Your task to perform on an android device: open app "YouTube Kids" (install if not already installed), go to login, and select forgot password Image 0: 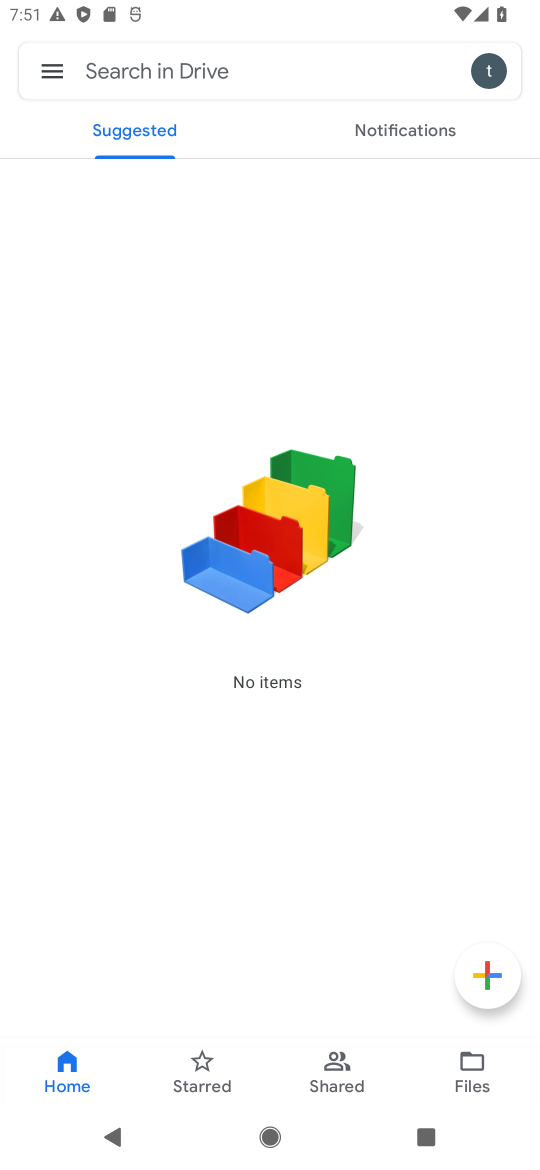
Step 0: press home button
Your task to perform on an android device: open app "YouTube Kids" (install if not already installed), go to login, and select forgot password Image 1: 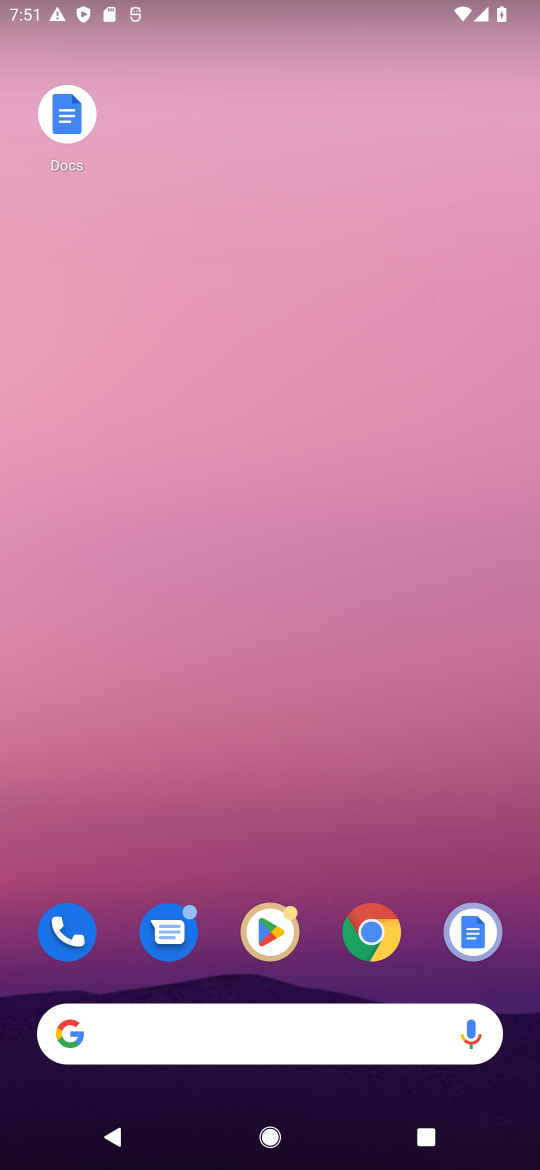
Step 1: click (278, 937)
Your task to perform on an android device: open app "YouTube Kids" (install if not already installed), go to login, and select forgot password Image 2: 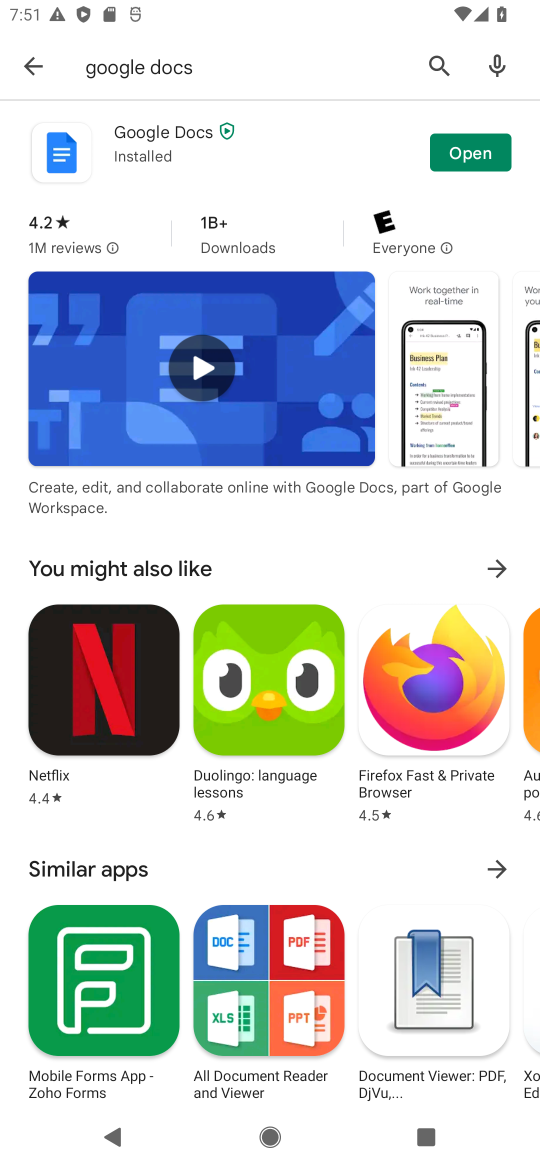
Step 2: click (123, 65)
Your task to perform on an android device: open app "YouTube Kids" (install if not already installed), go to login, and select forgot password Image 3: 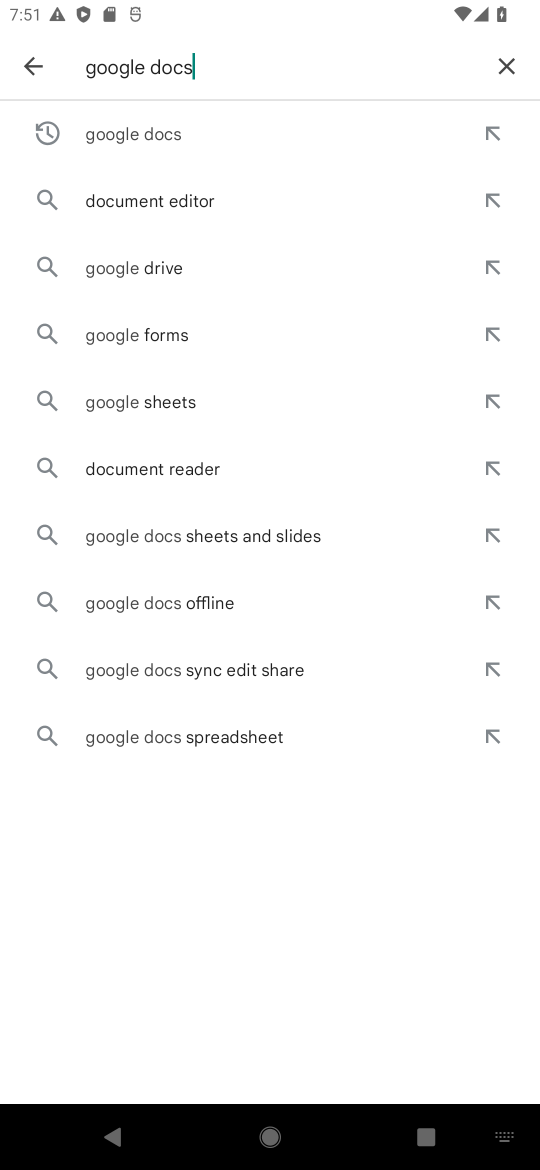
Step 3: click (502, 61)
Your task to perform on an android device: open app "YouTube Kids" (install if not already installed), go to login, and select forgot password Image 4: 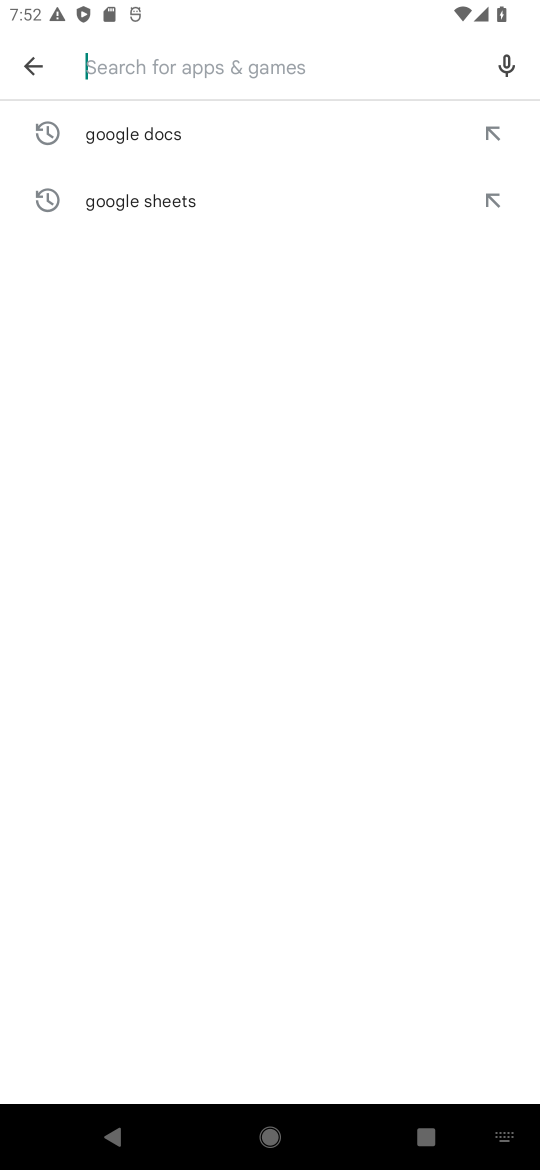
Step 4: type "youtube kids"
Your task to perform on an android device: open app "YouTube Kids" (install if not already installed), go to login, and select forgot password Image 5: 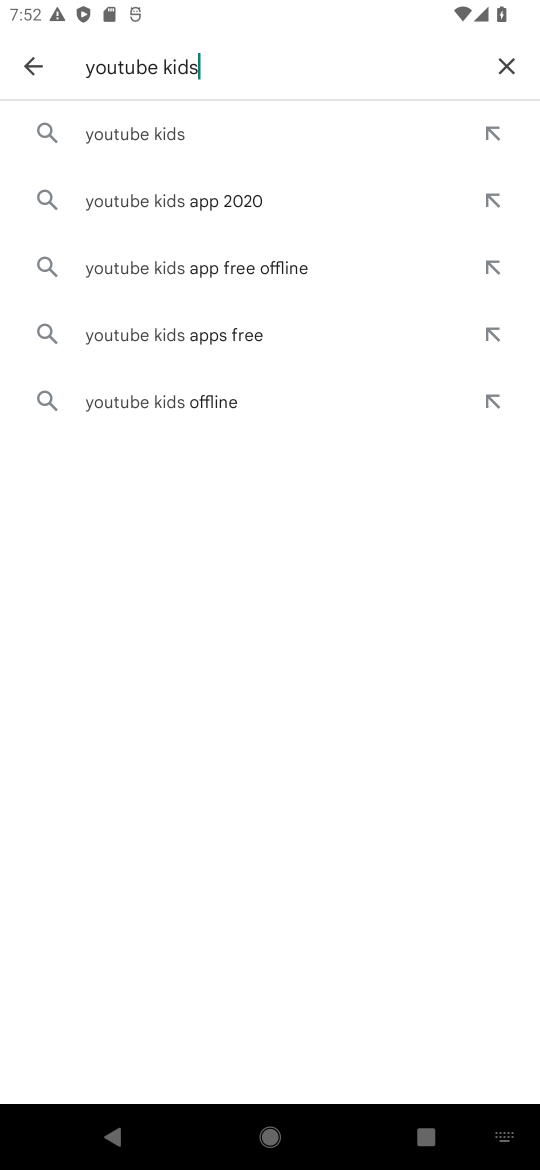
Step 5: click (160, 134)
Your task to perform on an android device: open app "YouTube Kids" (install if not already installed), go to login, and select forgot password Image 6: 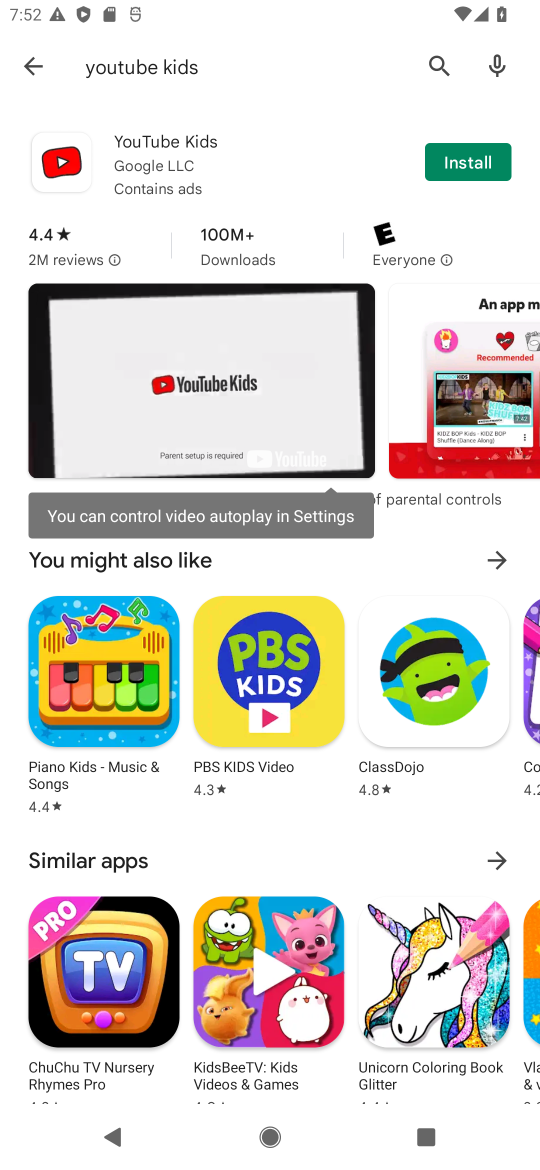
Step 6: click (472, 156)
Your task to perform on an android device: open app "YouTube Kids" (install if not already installed), go to login, and select forgot password Image 7: 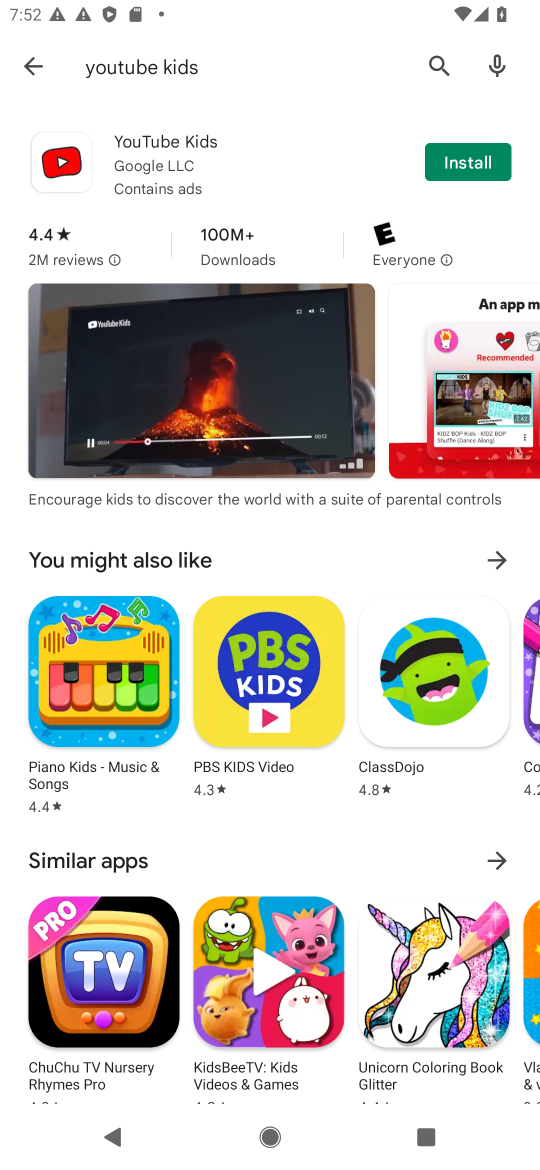
Step 7: click (481, 162)
Your task to perform on an android device: open app "YouTube Kids" (install if not already installed), go to login, and select forgot password Image 8: 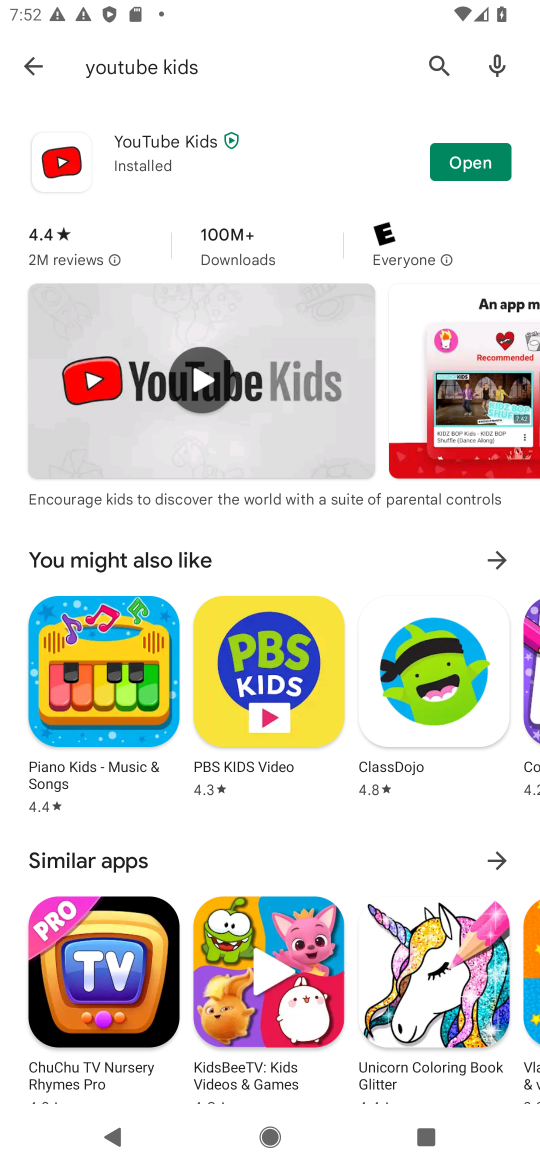
Step 8: click (493, 154)
Your task to perform on an android device: open app "YouTube Kids" (install if not already installed), go to login, and select forgot password Image 9: 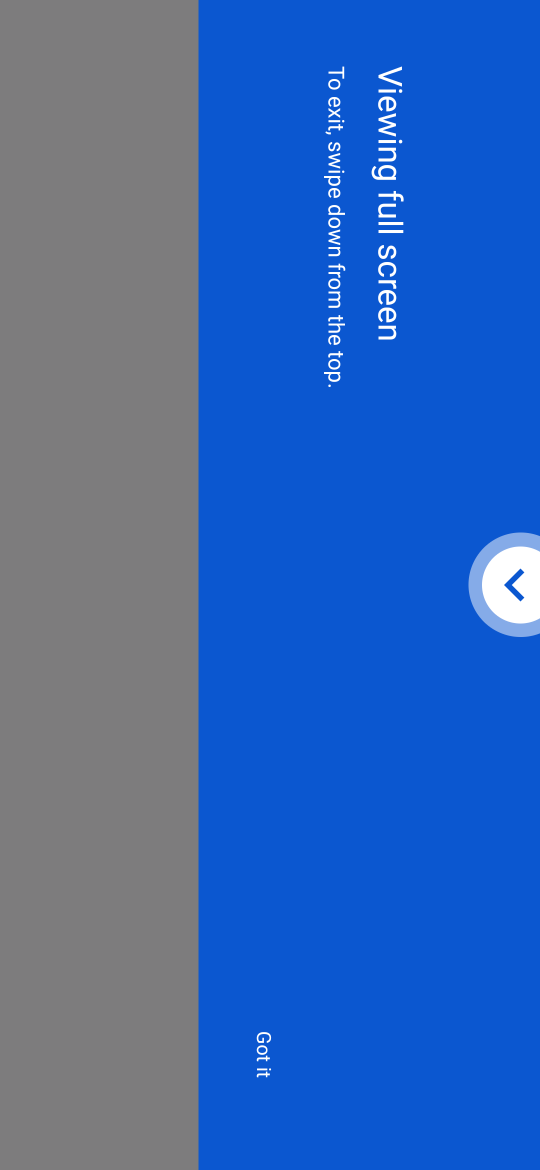
Step 9: click (279, 1035)
Your task to perform on an android device: open app "YouTube Kids" (install if not already installed), go to login, and select forgot password Image 10: 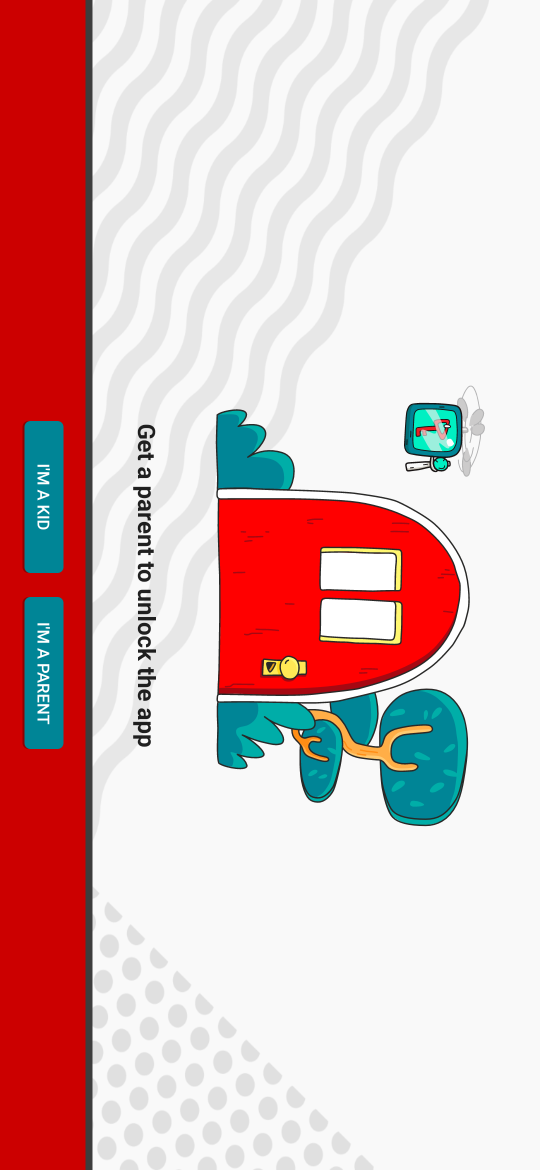
Step 10: click (44, 685)
Your task to perform on an android device: open app "YouTube Kids" (install if not already installed), go to login, and select forgot password Image 11: 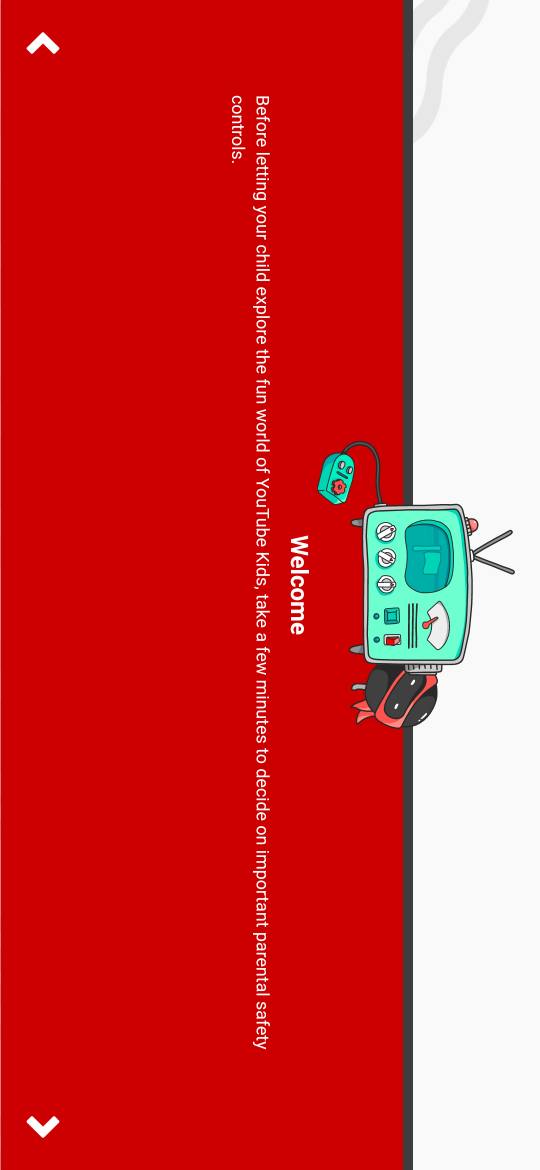
Step 11: click (36, 1130)
Your task to perform on an android device: open app "YouTube Kids" (install if not already installed), go to login, and select forgot password Image 12: 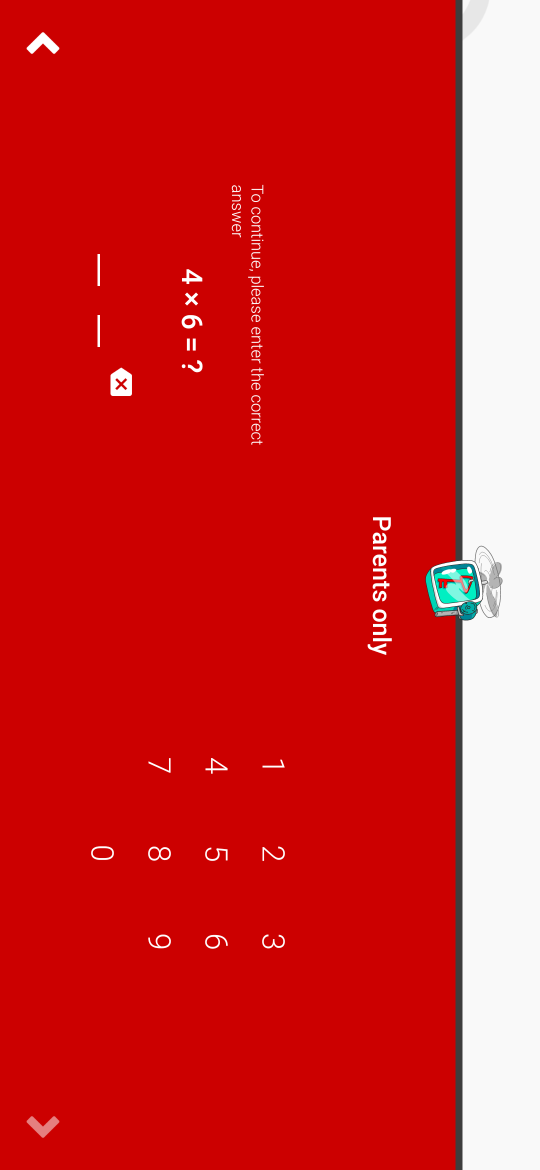
Step 12: click (279, 856)
Your task to perform on an android device: open app "YouTube Kids" (install if not already installed), go to login, and select forgot password Image 13: 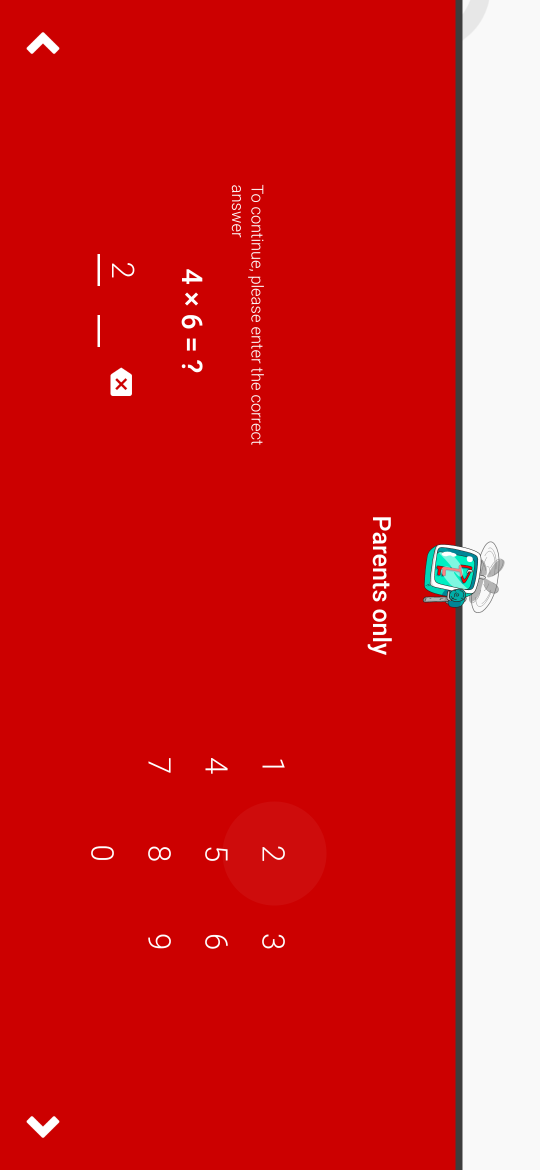
Step 13: click (212, 767)
Your task to perform on an android device: open app "YouTube Kids" (install if not already installed), go to login, and select forgot password Image 14: 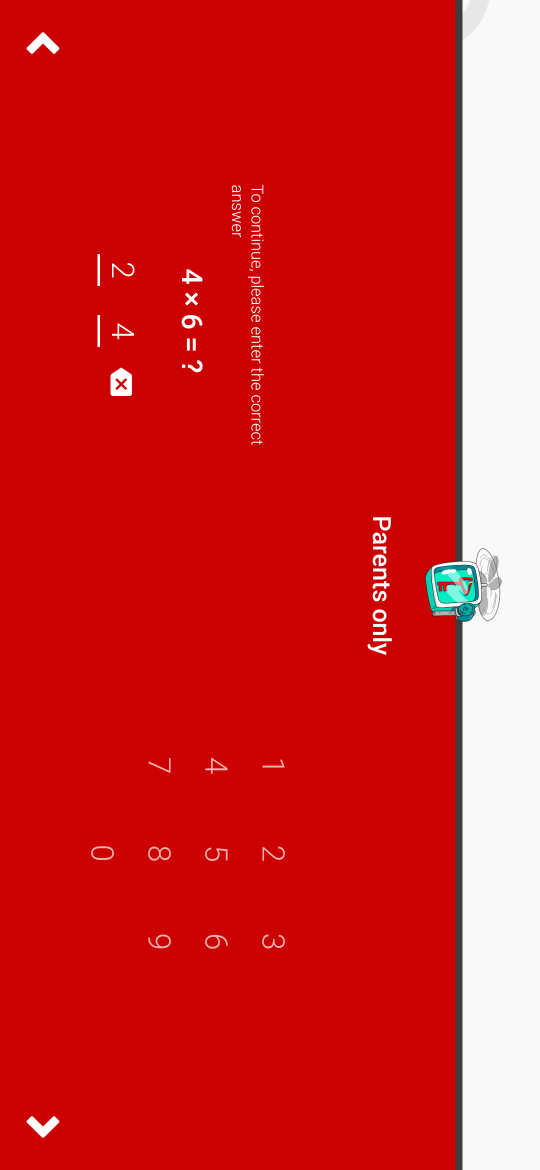
Step 14: click (35, 1128)
Your task to perform on an android device: open app "YouTube Kids" (install if not already installed), go to login, and select forgot password Image 15: 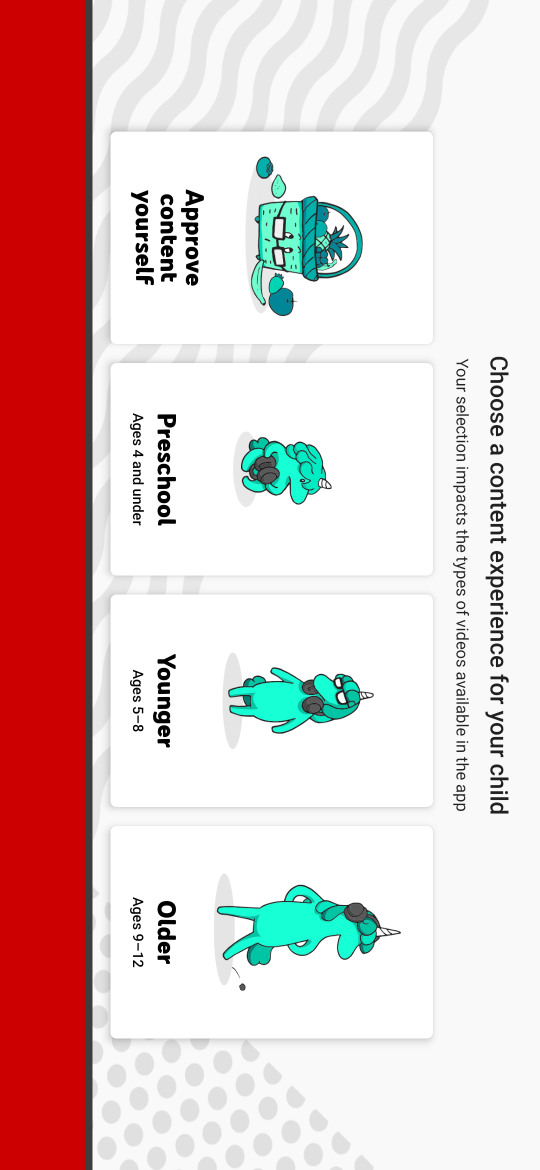
Step 15: click (238, 922)
Your task to perform on an android device: open app "YouTube Kids" (install if not already installed), go to login, and select forgot password Image 16: 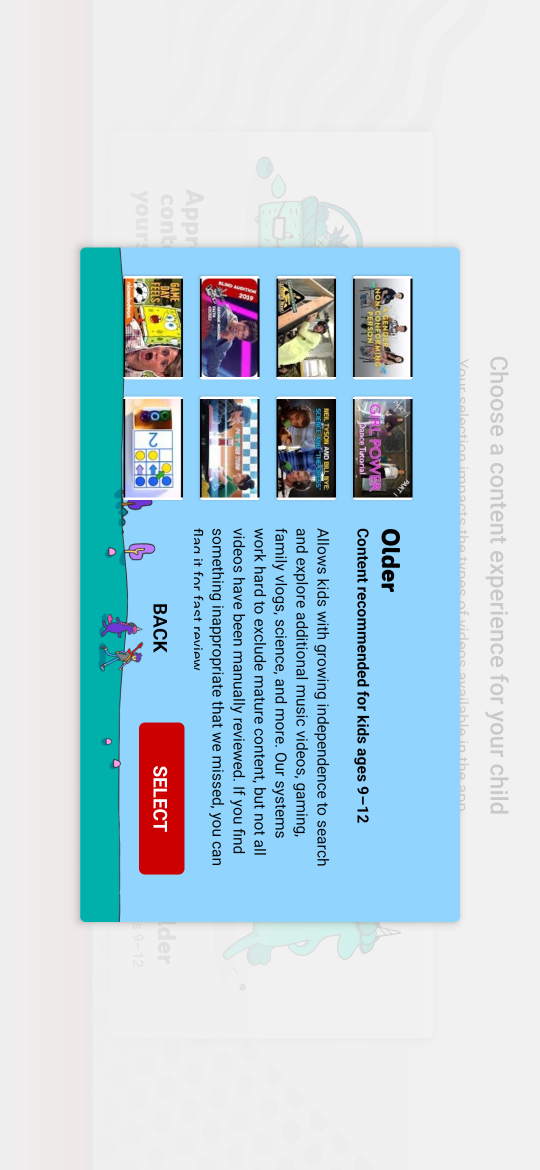
Step 16: click (157, 817)
Your task to perform on an android device: open app "YouTube Kids" (install if not already installed), go to login, and select forgot password Image 17: 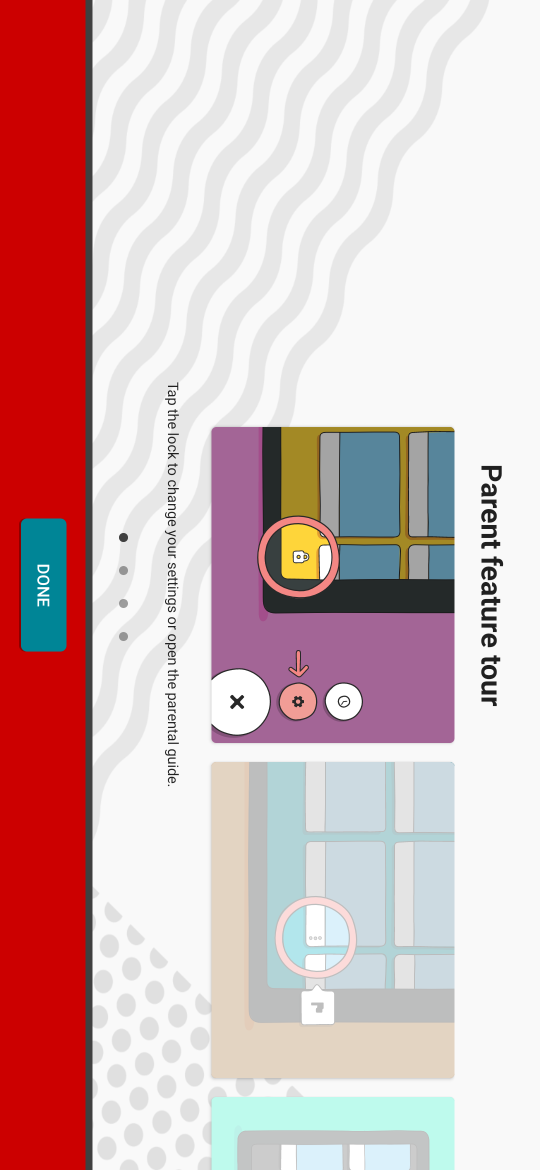
Step 17: click (52, 601)
Your task to perform on an android device: open app "YouTube Kids" (install if not already installed), go to login, and select forgot password Image 18: 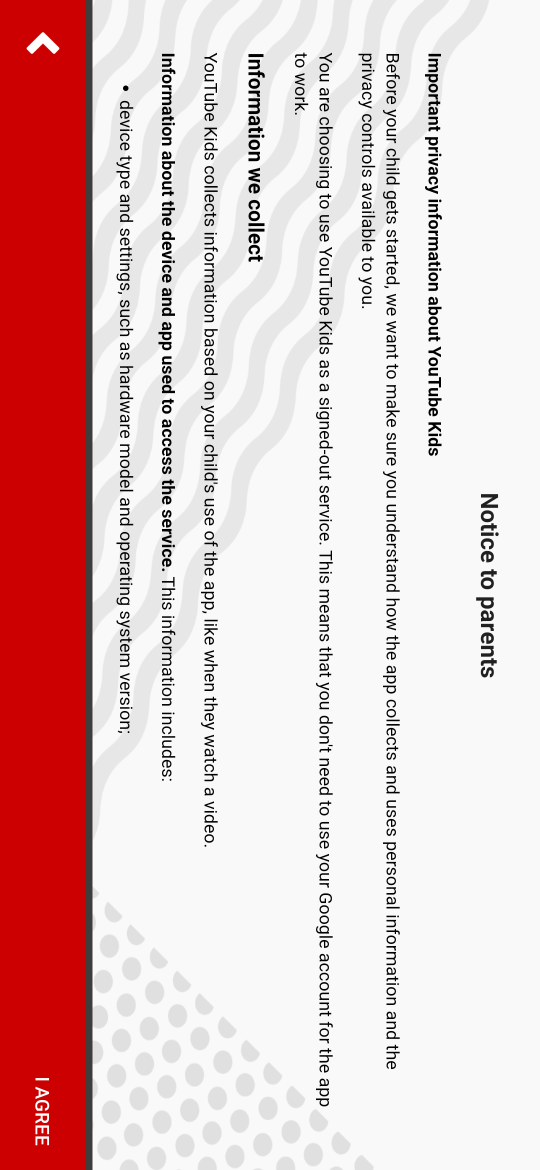
Step 18: click (26, 1113)
Your task to perform on an android device: open app "YouTube Kids" (install if not already installed), go to login, and select forgot password Image 19: 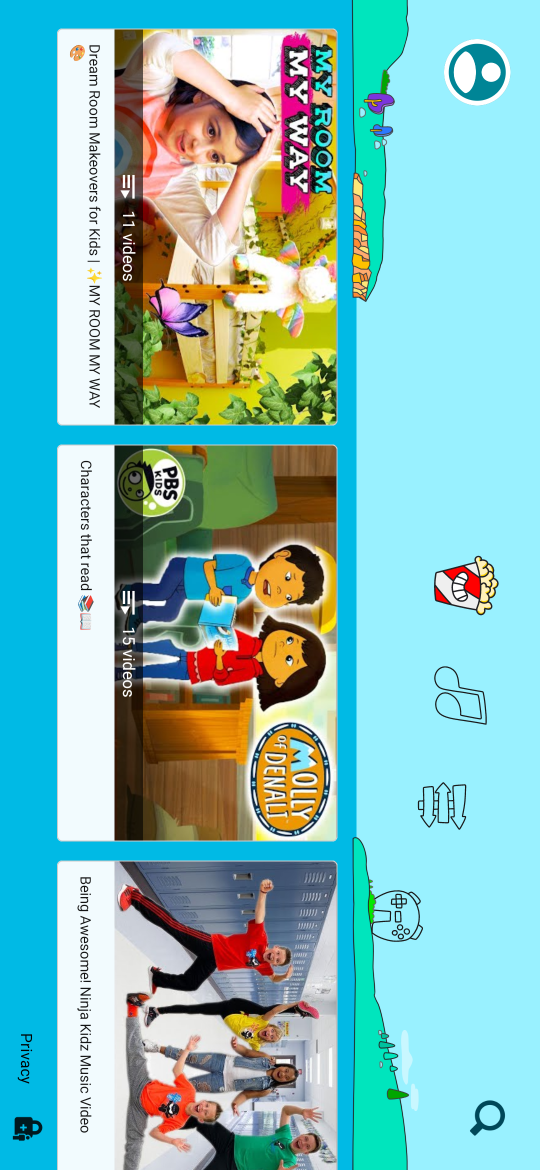
Step 19: task complete